Your task to perform on an android device: Open ESPN.com Image 0: 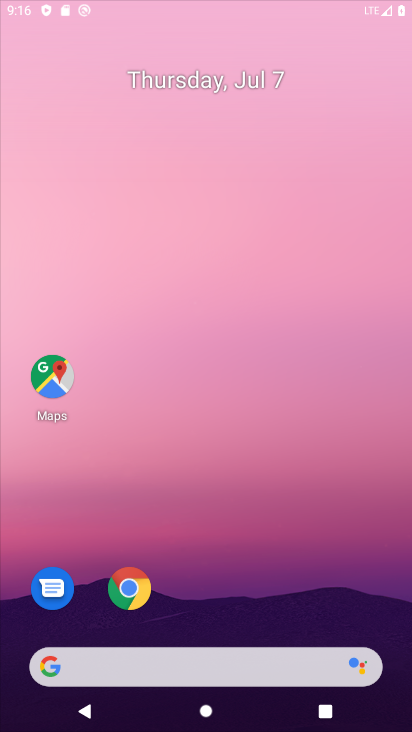
Step 0: click (375, 93)
Your task to perform on an android device: Open ESPN.com Image 1: 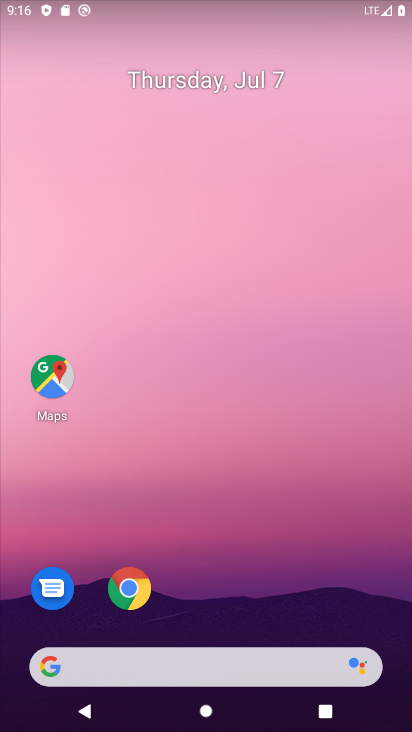
Step 1: drag from (240, 611) to (162, 105)
Your task to perform on an android device: Open ESPN.com Image 2: 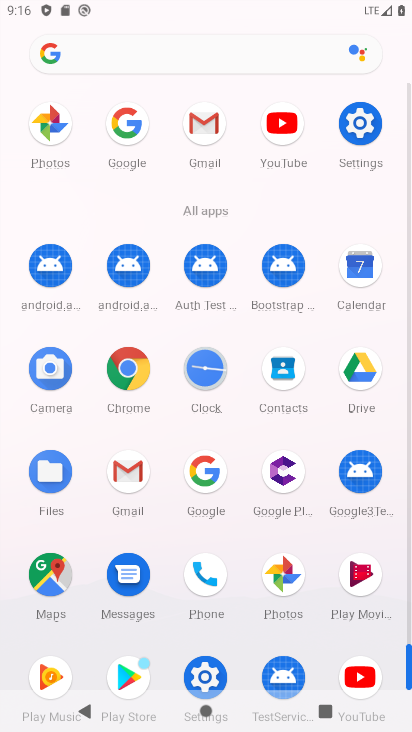
Step 2: click (363, 124)
Your task to perform on an android device: Open ESPN.com Image 3: 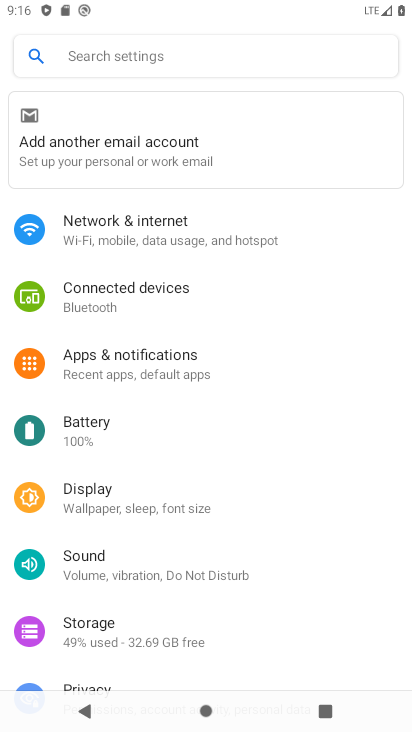
Step 3: click (363, 124)
Your task to perform on an android device: Open ESPN.com Image 4: 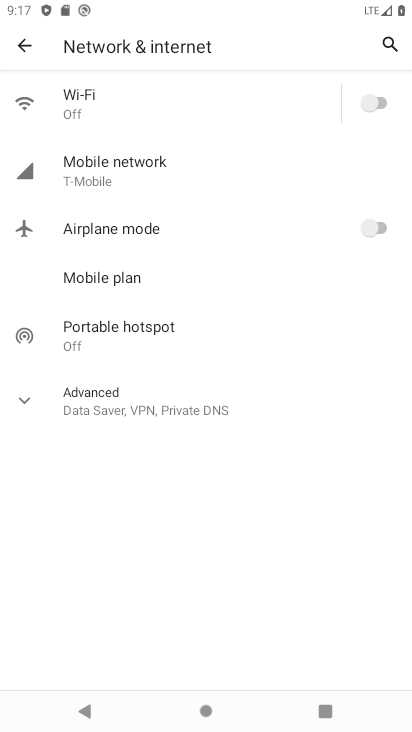
Step 4: click (363, 96)
Your task to perform on an android device: Open ESPN.com Image 5: 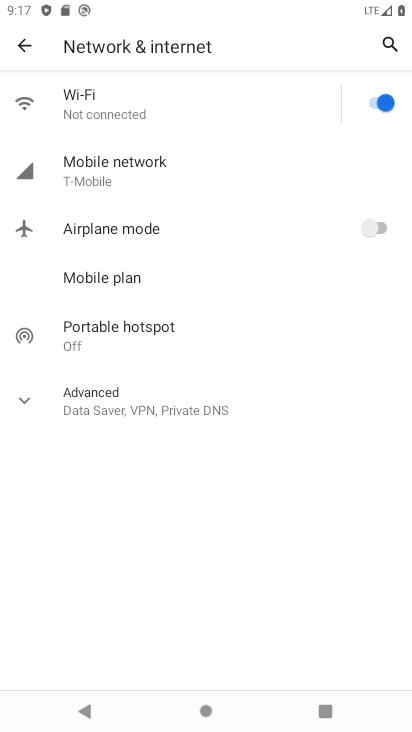
Step 5: click (22, 48)
Your task to perform on an android device: Open ESPN.com Image 6: 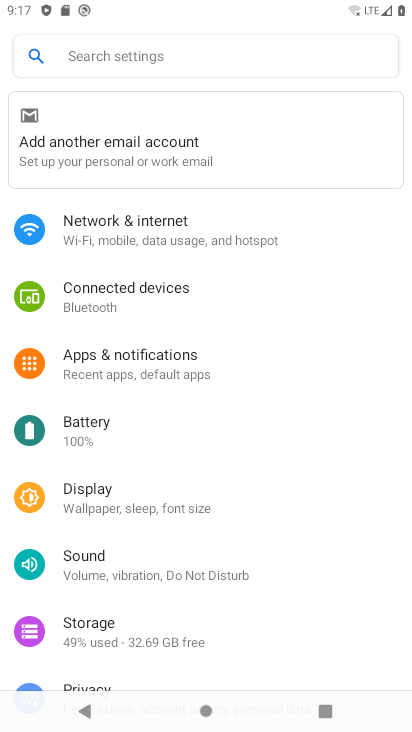
Step 6: press back button
Your task to perform on an android device: Open ESPN.com Image 7: 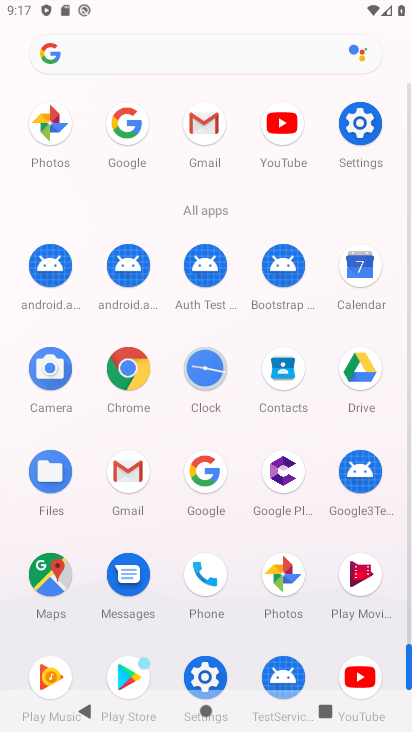
Step 7: click (134, 359)
Your task to perform on an android device: Open ESPN.com Image 8: 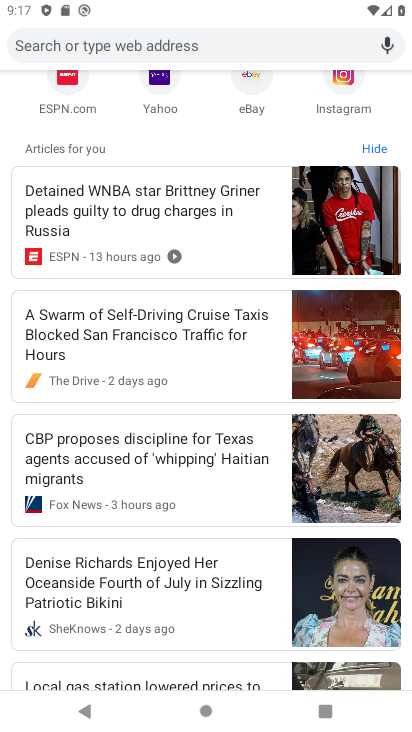
Step 8: drag from (169, 322) to (189, 394)
Your task to perform on an android device: Open ESPN.com Image 9: 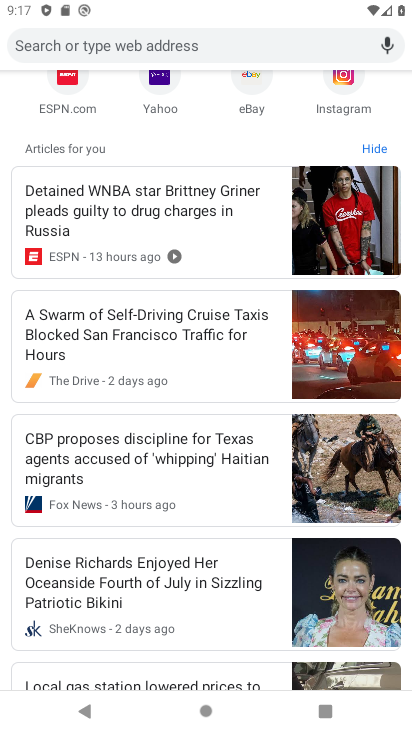
Step 9: click (159, 34)
Your task to perform on an android device: Open ESPN.com Image 10: 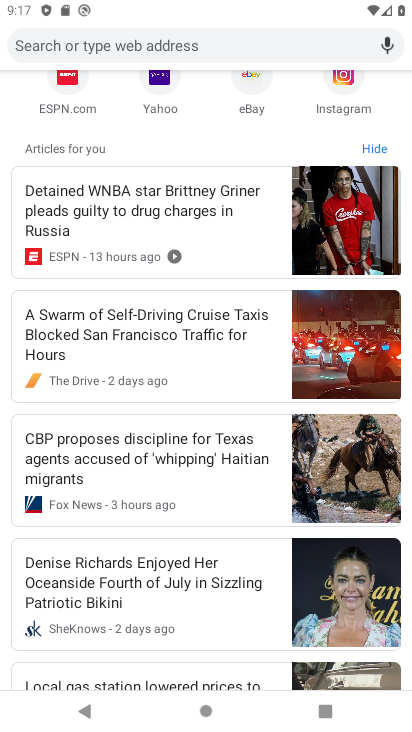
Step 10: click (155, 38)
Your task to perform on an android device: Open ESPN.com Image 11: 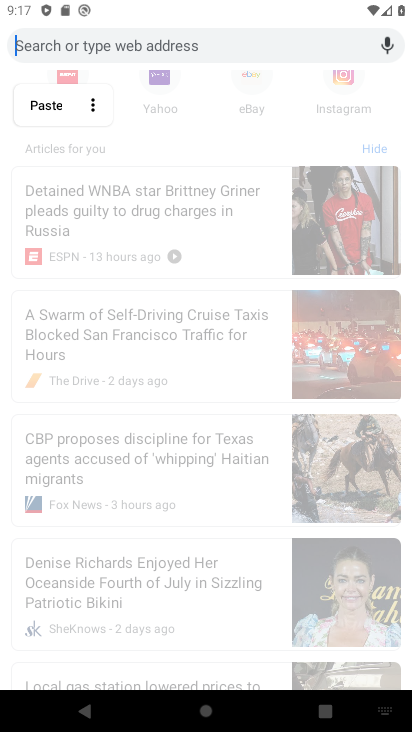
Step 11: type "espn.com"
Your task to perform on an android device: Open ESPN.com Image 12: 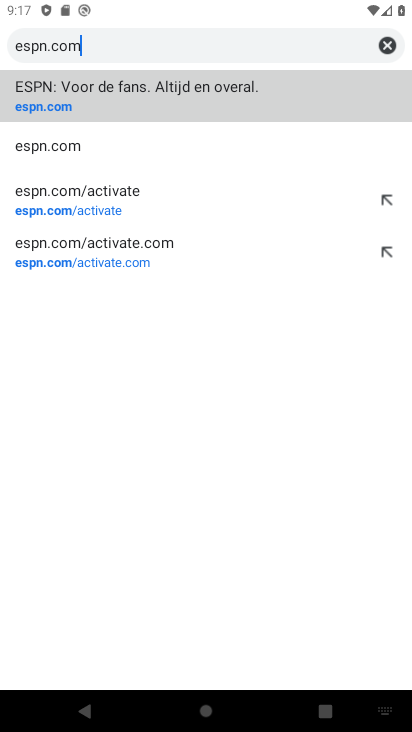
Step 12: click (83, 97)
Your task to perform on an android device: Open ESPN.com Image 13: 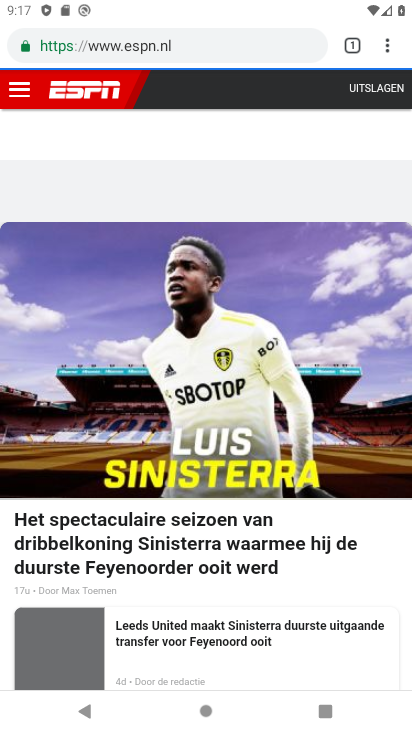
Step 13: task complete